Your task to perform on an android device: Open calendar and show me the fourth week of next month Image 0: 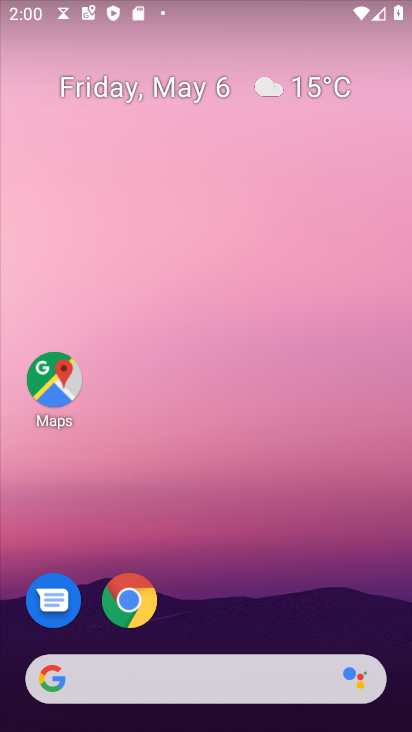
Step 0: drag from (277, 517) to (242, 59)
Your task to perform on an android device: Open calendar and show me the fourth week of next month Image 1: 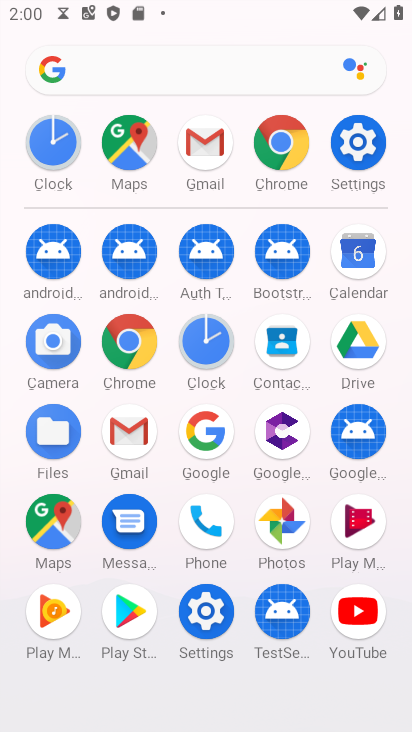
Step 1: drag from (7, 514) to (0, 191)
Your task to perform on an android device: Open calendar and show me the fourth week of next month Image 2: 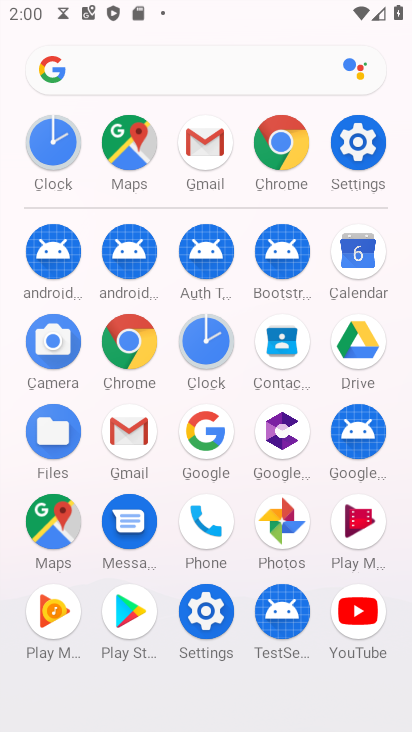
Step 2: click (366, 254)
Your task to perform on an android device: Open calendar and show me the fourth week of next month Image 3: 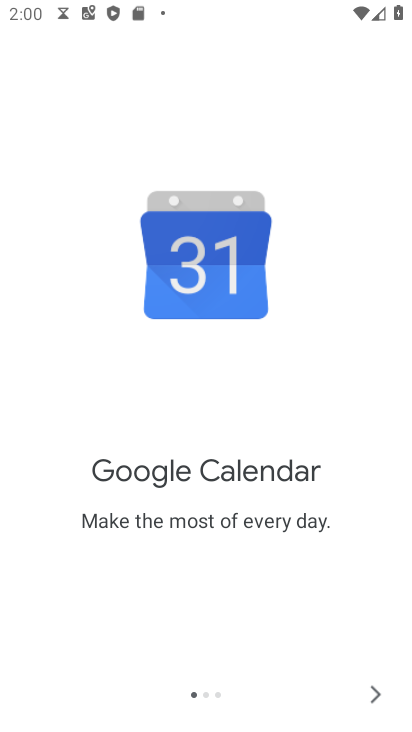
Step 3: click (397, 689)
Your task to perform on an android device: Open calendar and show me the fourth week of next month Image 4: 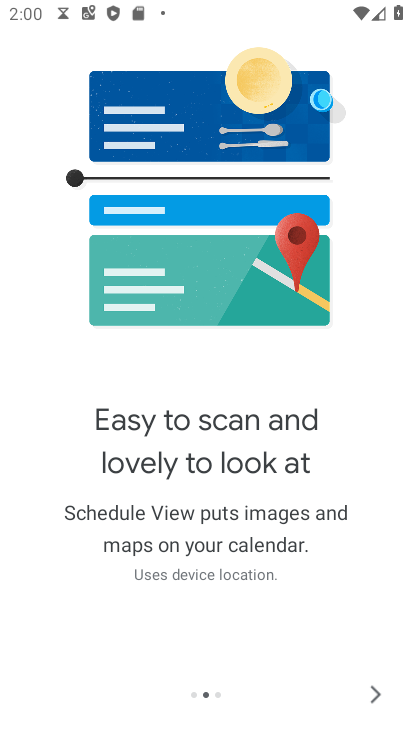
Step 4: click (397, 689)
Your task to perform on an android device: Open calendar and show me the fourth week of next month Image 5: 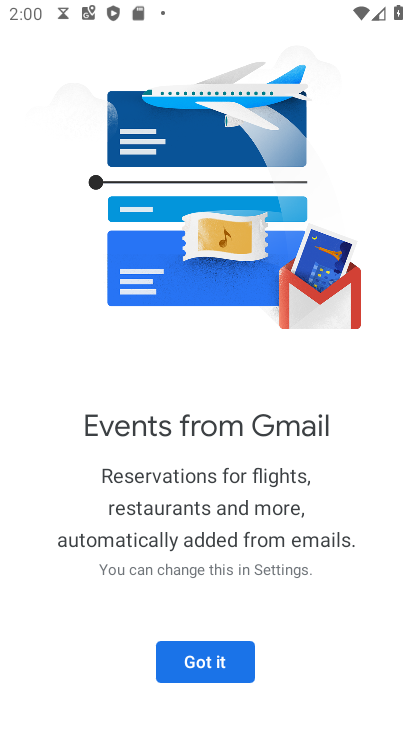
Step 5: click (206, 665)
Your task to perform on an android device: Open calendar and show me the fourth week of next month Image 6: 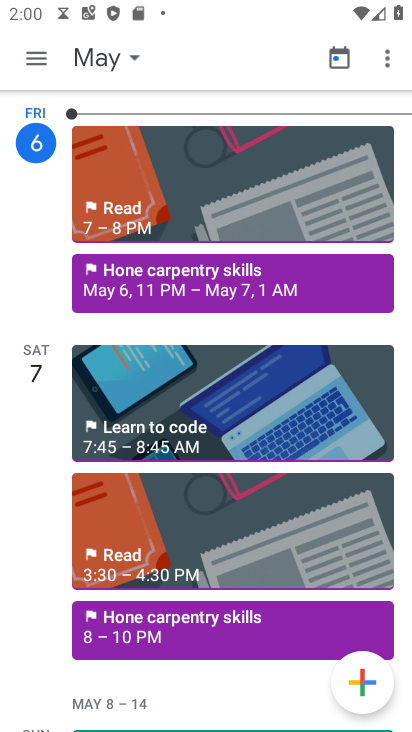
Step 6: click (97, 55)
Your task to perform on an android device: Open calendar and show me the fourth week of next month Image 7: 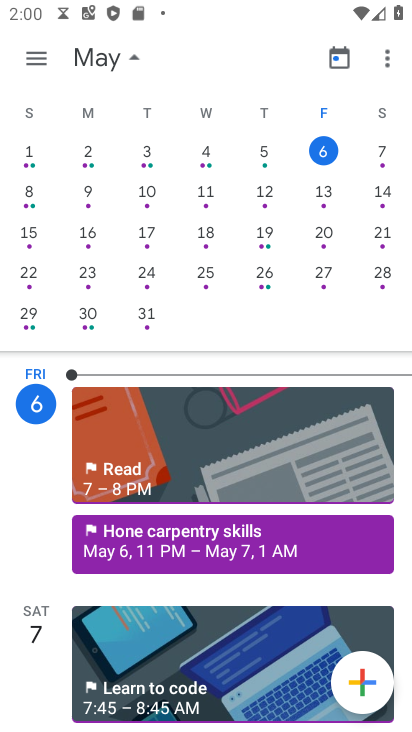
Step 7: drag from (409, 263) to (4, 195)
Your task to perform on an android device: Open calendar and show me the fourth week of next month Image 8: 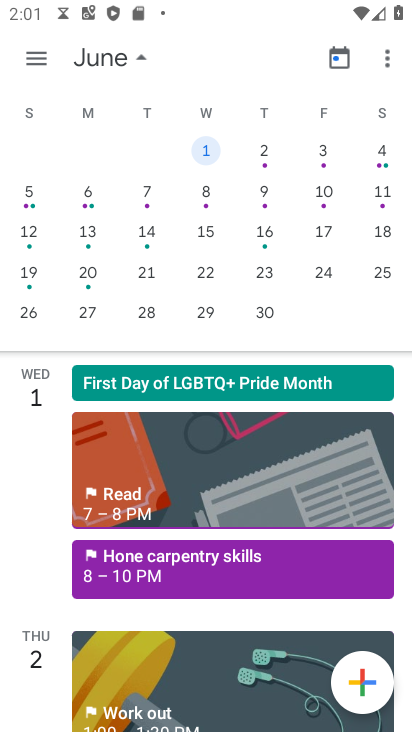
Step 8: click (32, 280)
Your task to perform on an android device: Open calendar and show me the fourth week of next month Image 9: 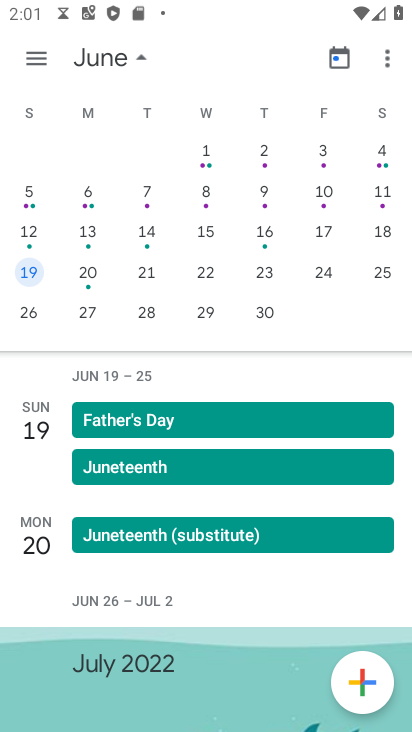
Step 9: click (29, 50)
Your task to perform on an android device: Open calendar and show me the fourth week of next month Image 10: 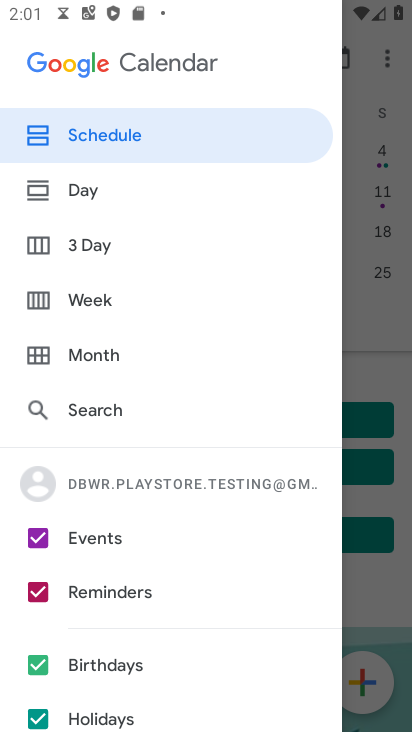
Step 10: click (110, 307)
Your task to perform on an android device: Open calendar and show me the fourth week of next month Image 11: 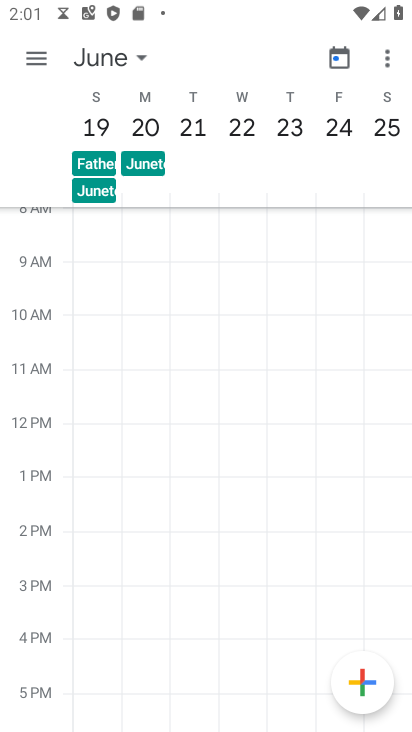
Step 11: task complete